Your task to perform on an android device: Find coffee shops on Maps Image 0: 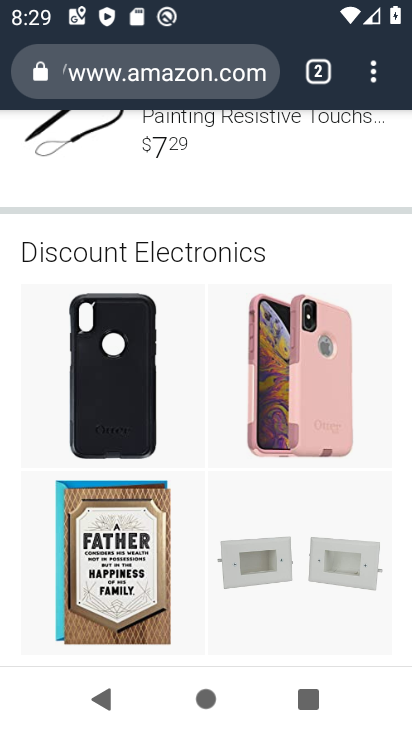
Step 0: press home button
Your task to perform on an android device: Find coffee shops on Maps Image 1: 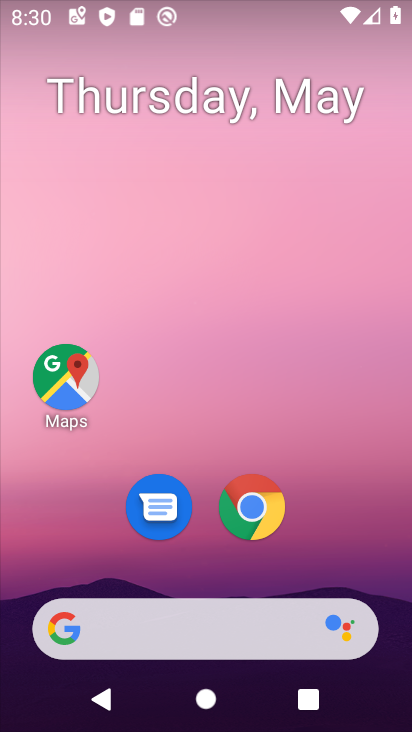
Step 1: drag from (363, 543) to (350, 138)
Your task to perform on an android device: Find coffee shops on Maps Image 2: 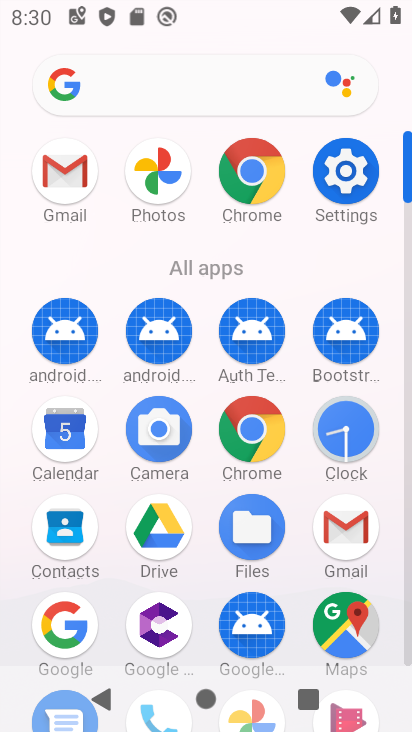
Step 2: click (341, 610)
Your task to perform on an android device: Find coffee shops on Maps Image 3: 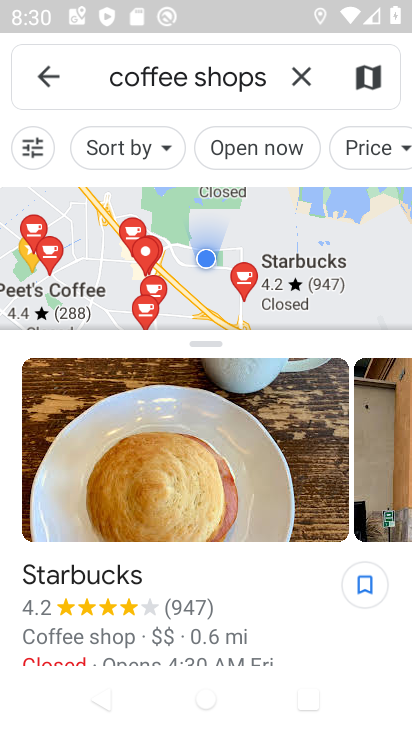
Step 3: task complete